Your task to perform on an android device: Open Chrome and go to settings Image 0: 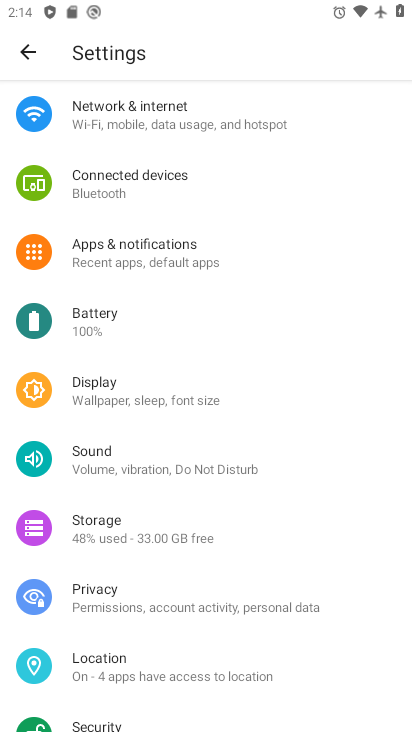
Step 0: press home button
Your task to perform on an android device: Open Chrome and go to settings Image 1: 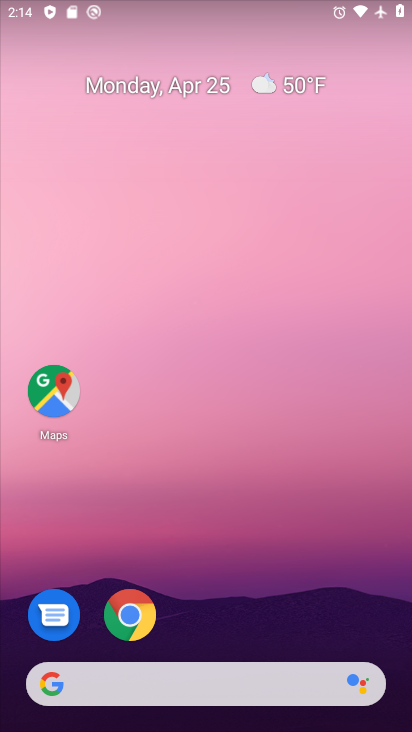
Step 1: click (129, 615)
Your task to perform on an android device: Open Chrome and go to settings Image 2: 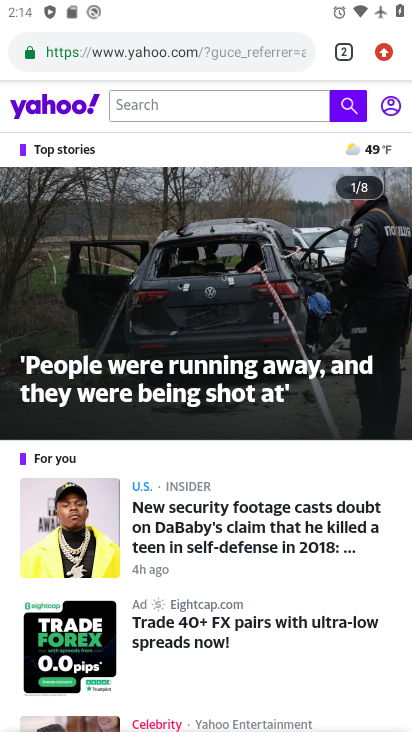
Step 2: click (384, 53)
Your task to perform on an android device: Open Chrome and go to settings Image 3: 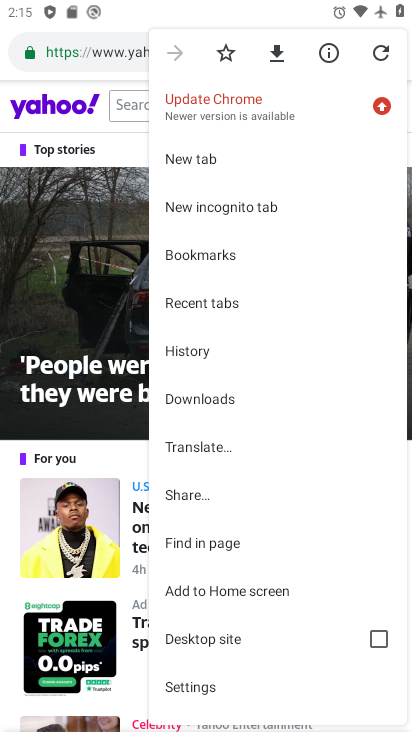
Step 3: click (200, 689)
Your task to perform on an android device: Open Chrome and go to settings Image 4: 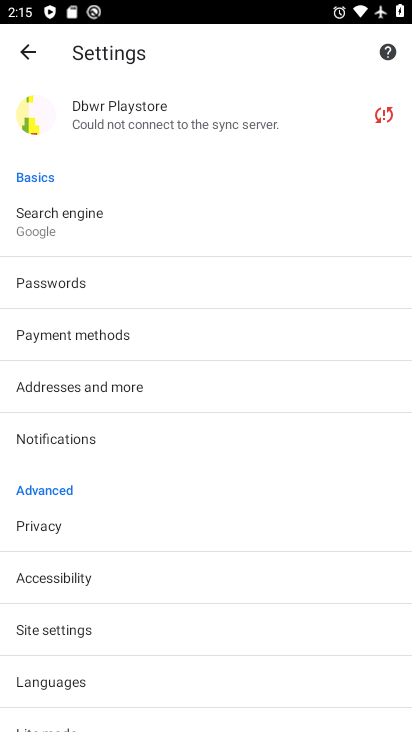
Step 4: task complete